Your task to perform on an android device: Open my contact list Image 0: 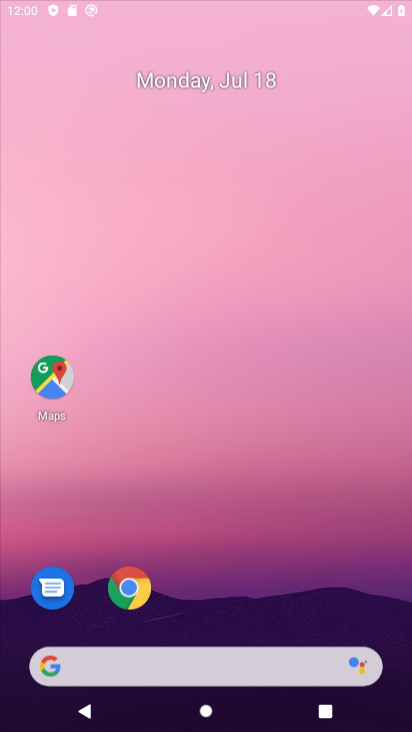
Step 0: click (247, 24)
Your task to perform on an android device: Open my contact list Image 1: 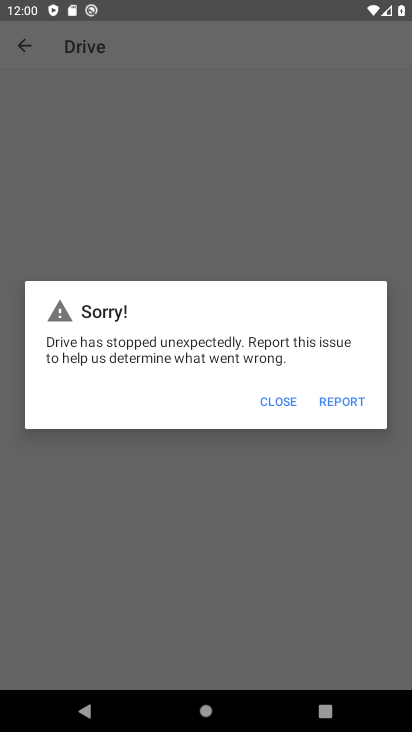
Step 1: drag from (241, 702) to (244, 308)
Your task to perform on an android device: Open my contact list Image 2: 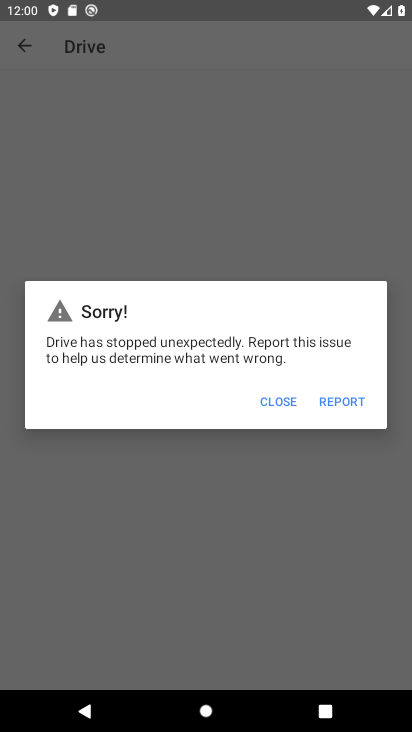
Step 2: press home button
Your task to perform on an android device: Open my contact list Image 3: 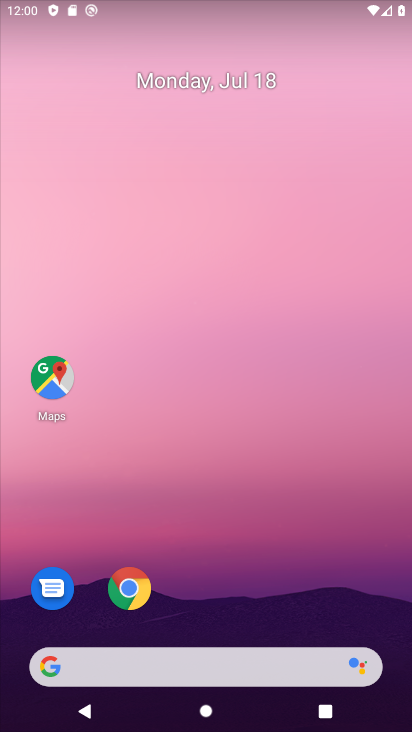
Step 3: drag from (248, 726) to (240, 50)
Your task to perform on an android device: Open my contact list Image 4: 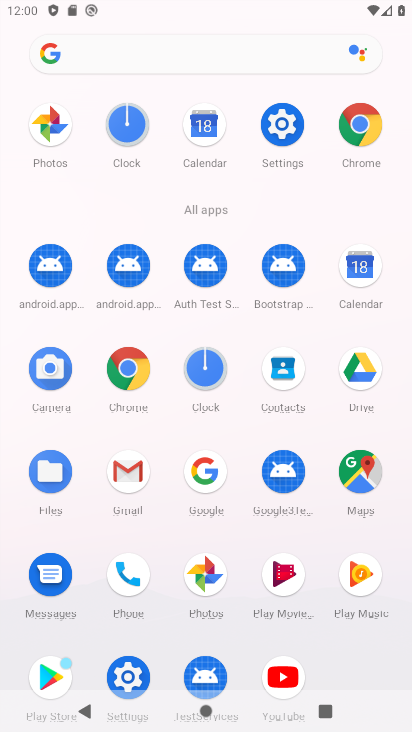
Step 4: click (281, 373)
Your task to perform on an android device: Open my contact list Image 5: 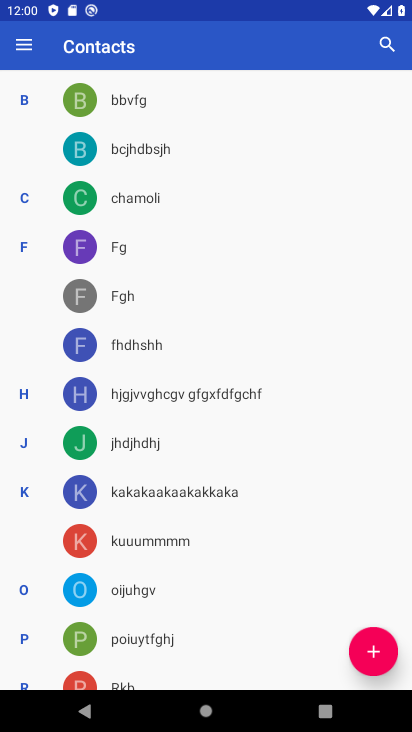
Step 5: task complete